Your task to perform on an android device: check google app version Image 0: 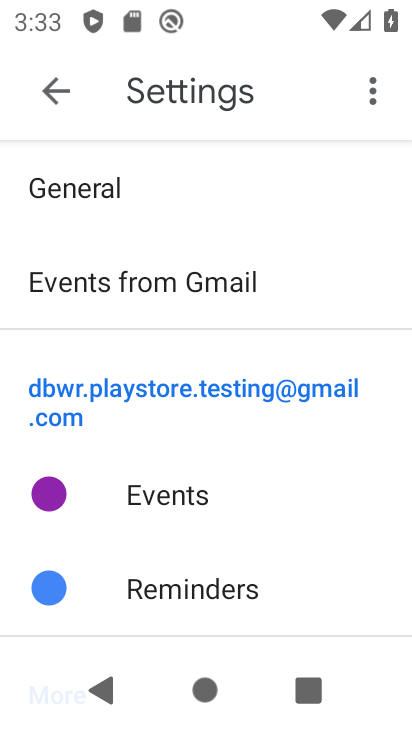
Step 0: press home button
Your task to perform on an android device: check google app version Image 1: 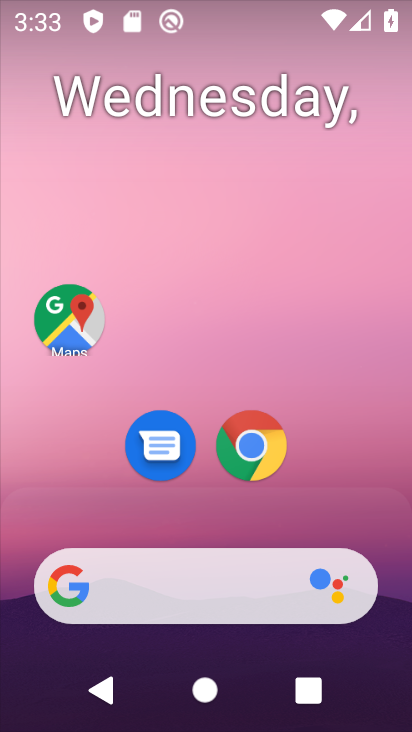
Step 1: drag from (202, 514) to (236, 51)
Your task to perform on an android device: check google app version Image 2: 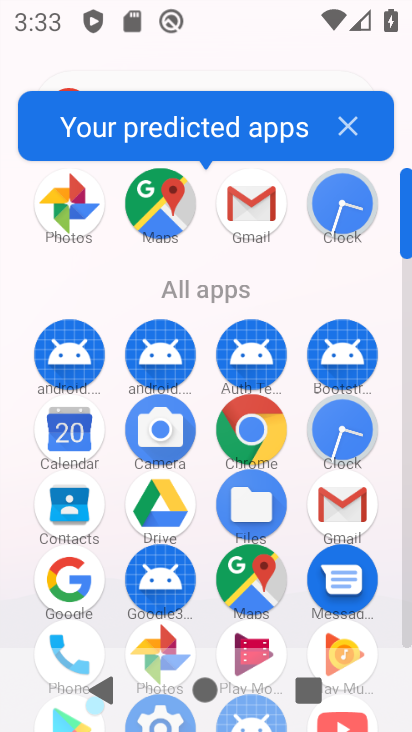
Step 2: click (68, 576)
Your task to perform on an android device: check google app version Image 3: 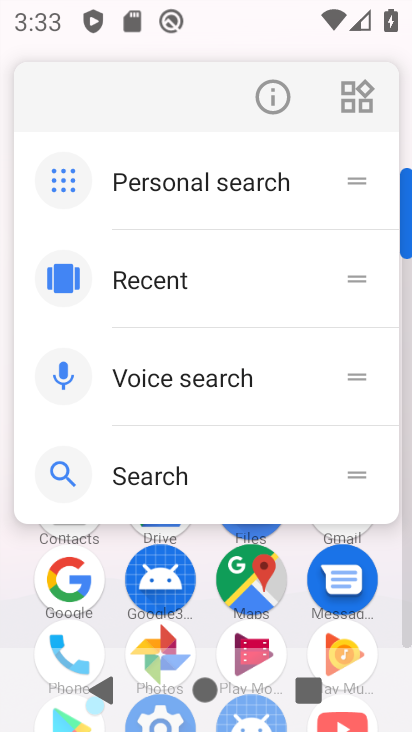
Step 3: click (68, 576)
Your task to perform on an android device: check google app version Image 4: 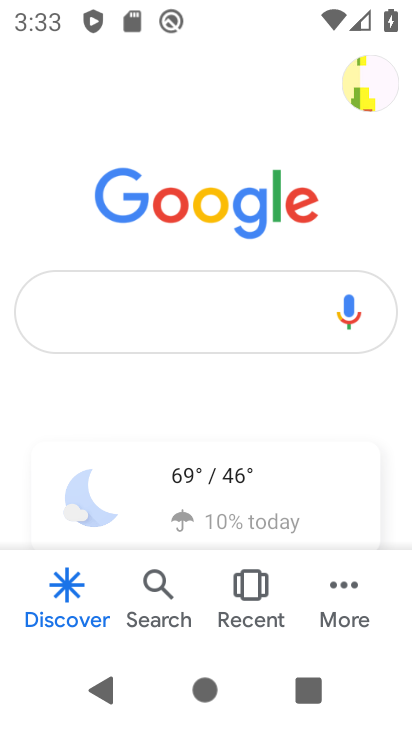
Step 4: click (336, 577)
Your task to perform on an android device: check google app version Image 5: 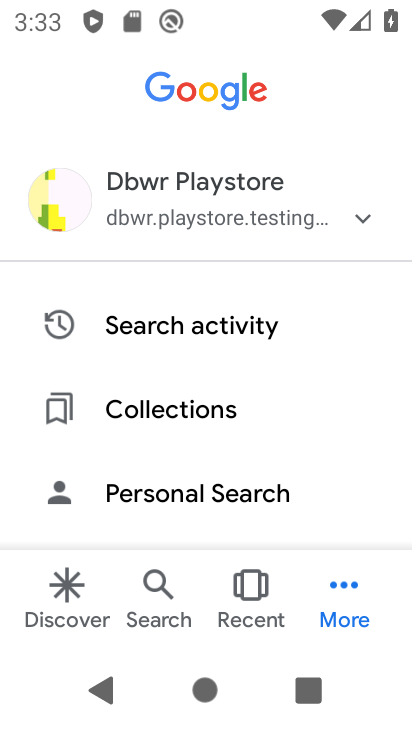
Step 5: drag from (208, 500) to (225, 239)
Your task to perform on an android device: check google app version Image 6: 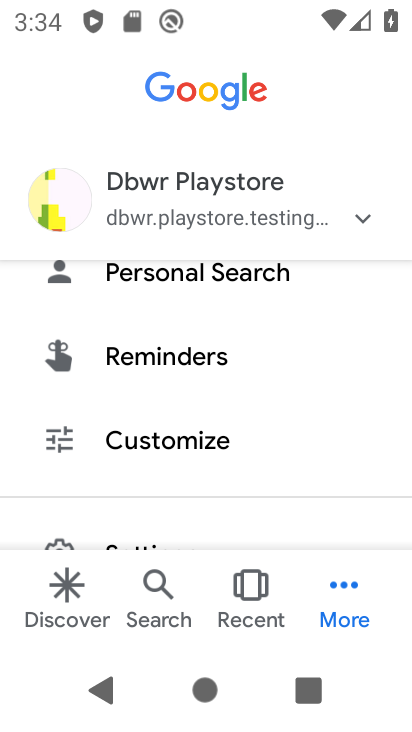
Step 6: drag from (176, 487) to (197, 296)
Your task to perform on an android device: check google app version Image 7: 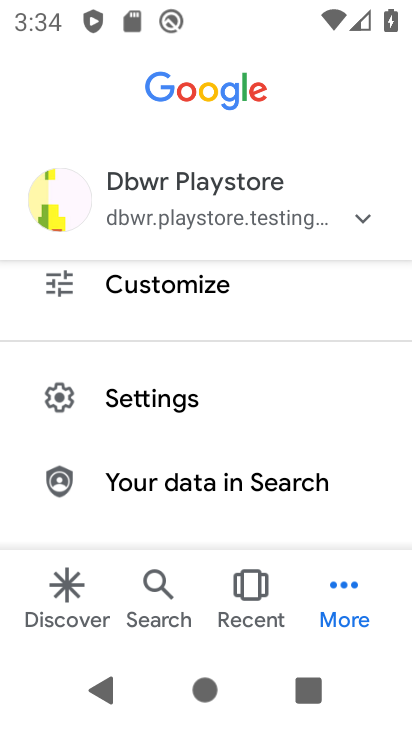
Step 7: click (90, 388)
Your task to perform on an android device: check google app version Image 8: 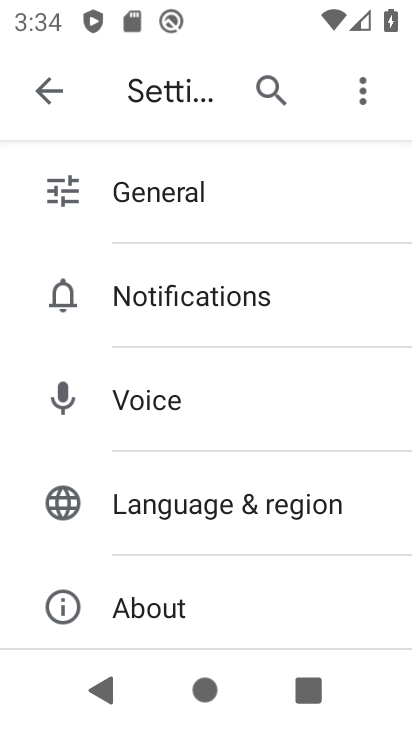
Step 8: drag from (206, 589) to (243, 249)
Your task to perform on an android device: check google app version Image 9: 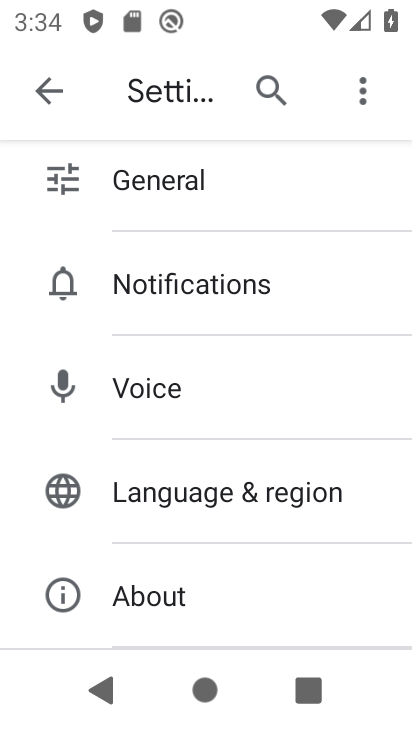
Step 9: click (198, 590)
Your task to perform on an android device: check google app version Image 10: 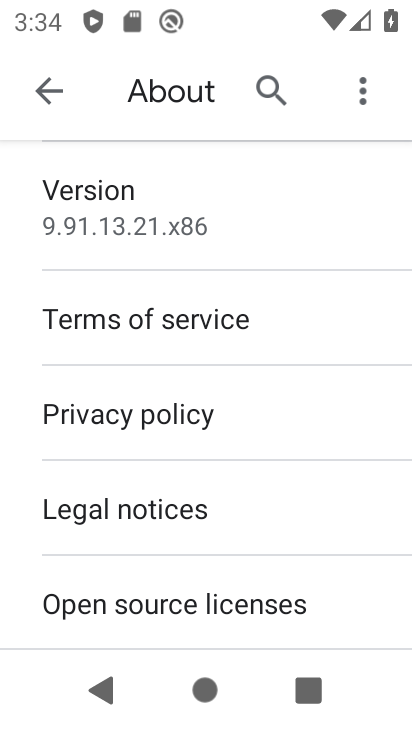
Step 10: task complete